Your task to perform on an android device: turn off priority inbox in the gmail app Image 0: 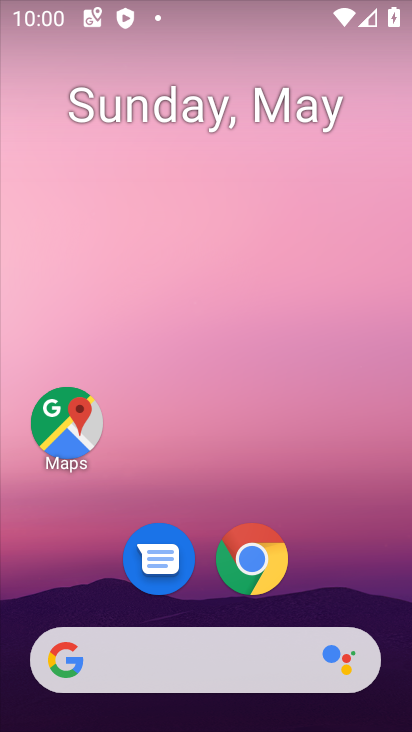
Step 0: drag from (205, 608) to (203, 10)
Your task to perform on an android device: turn off priority inbox in the gmail app Image 1: 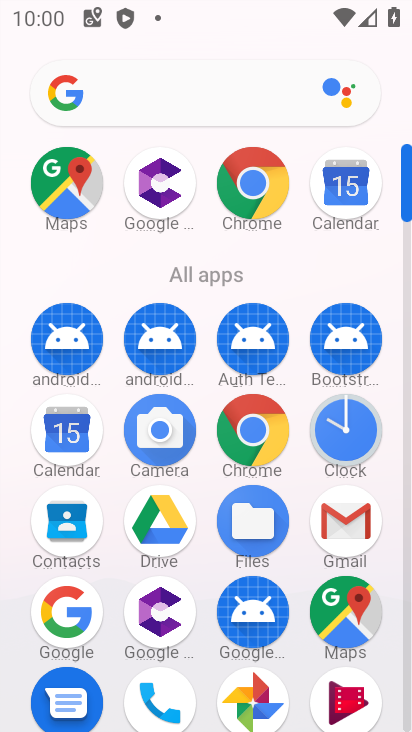
Step 1: click (365, 519)
Your task to perform on an android device: turn off priority inbox in the gmail app Image 2: 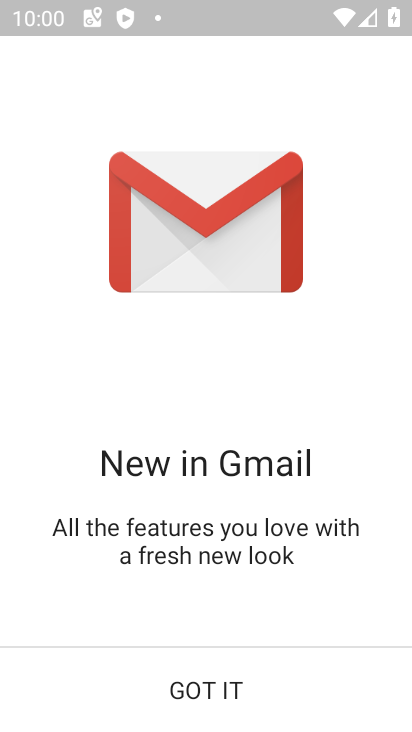
Step 2: click (247, 680)
Your task to perform on an android device: turn off priority inbox in the gmail app Image 3: 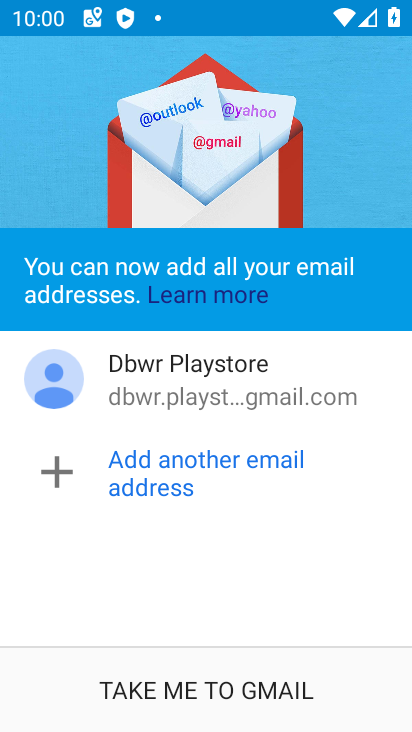
Step 3: click (268, 675)
Your task to perform on an android device: turn off priority inbox in the gmail app Image 4: 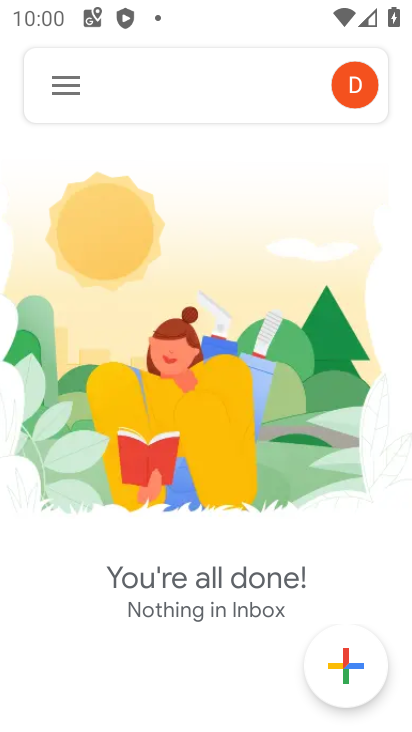
Step 4: click (70, 74)
Your task to perform on an android device: turn off priority inbox in the gmail app Image 5: 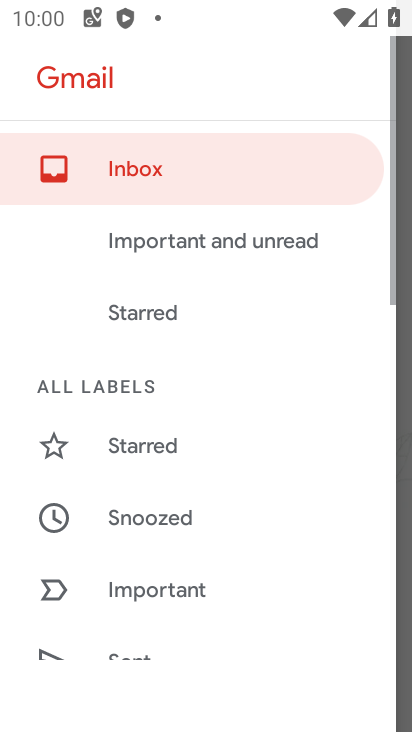
Step 5: drag from (153, 593) to (114, 92)
Your task to perform on an android device: turn off priority inbox in the gmail app Image 6: 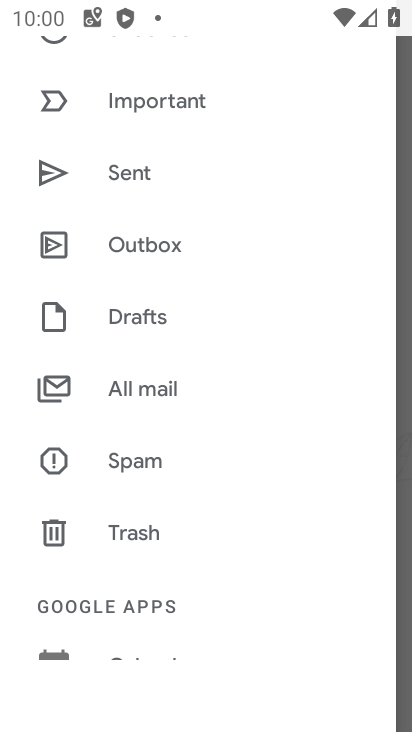
Step 6: drag from (195, 585) to (155, 31)
Your task to perform on an android device: turn off priority inbox in the gmail app Image 7: 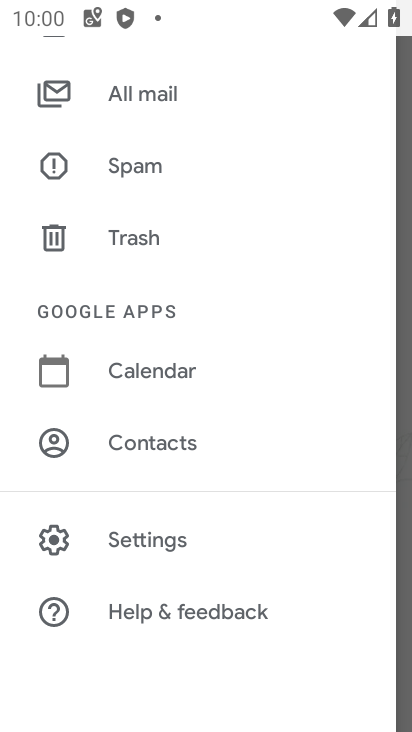
Step 7: click (141, 536)
Your task to perform on an android device: turn off priority inbox in the gmail app Image 8: 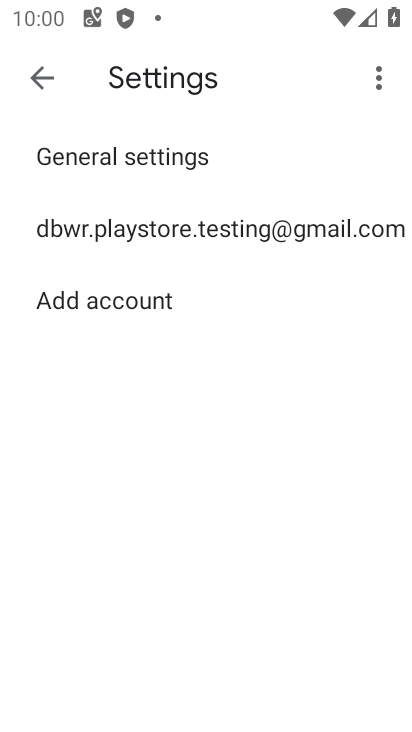
Step 8: click (151, 236)
Your task to perform on an android device: turn off priority inbox in the gmail app Image 9: 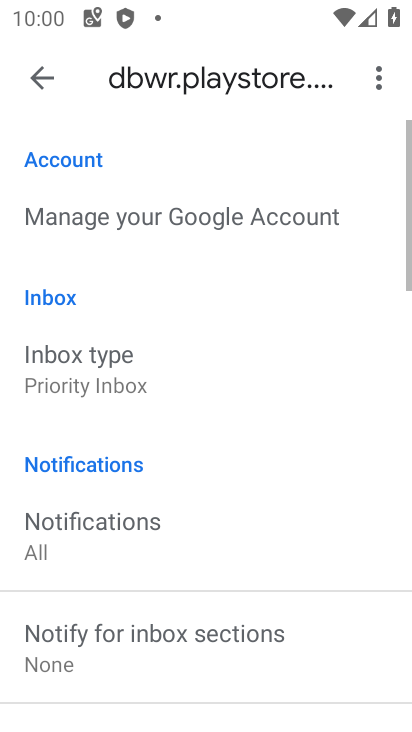
Step 9: click (92, 373)
Your task to perform on an android device: turn off priority inbox in the gmail app Image 10: 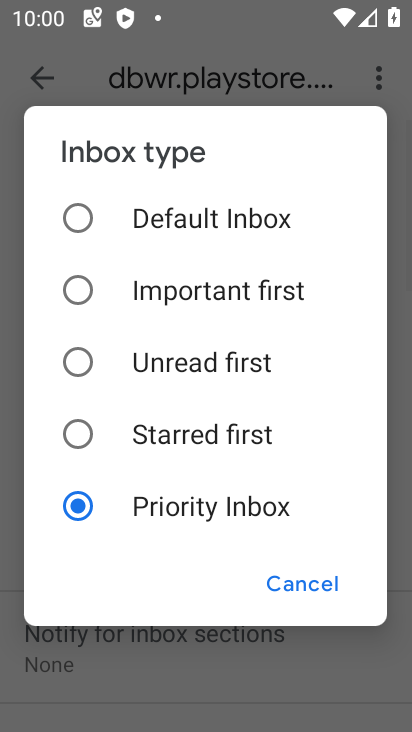
Step 10: click (113, 440)
Your task to perform on an android device: turn off priority inbox in the gmail app Image 11: 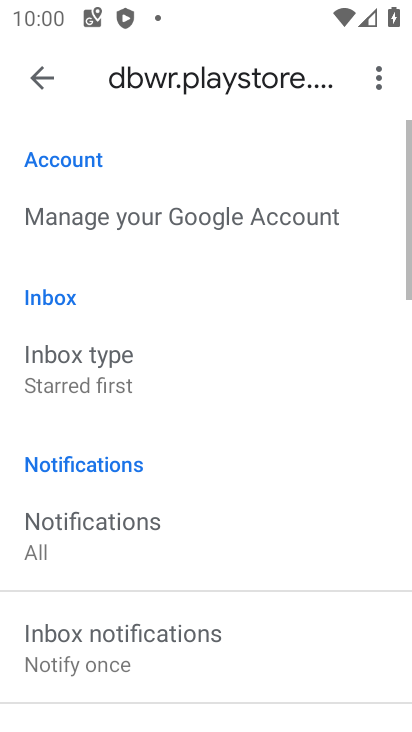
Step 11: task complete